Your task to perform on an android device: change alarm snooze length Image 0: 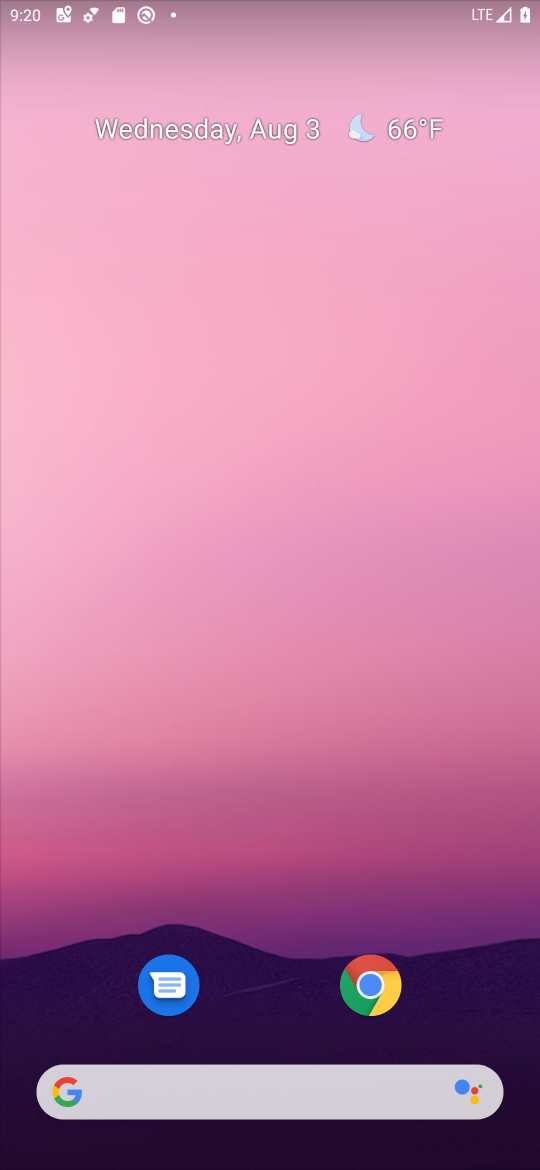
Step 0: drag from (284, 916) to (284, 252)
Your task to perform on an android device: change alarm snooze length Image 1: 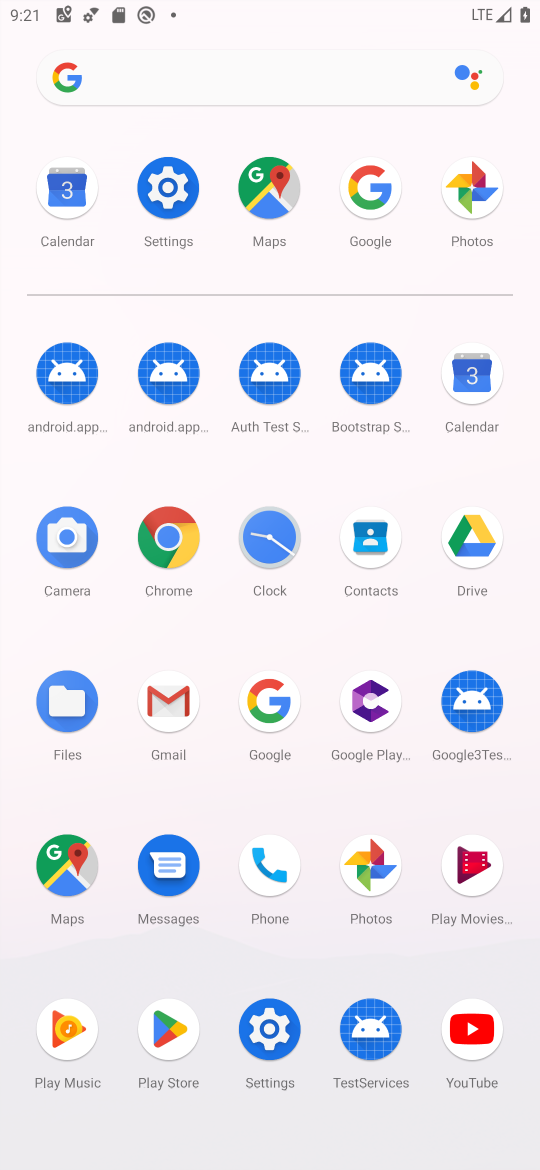
Step 1: click (265, 515)
Your task to perform on an android device: change alarm snooze length Image 2: 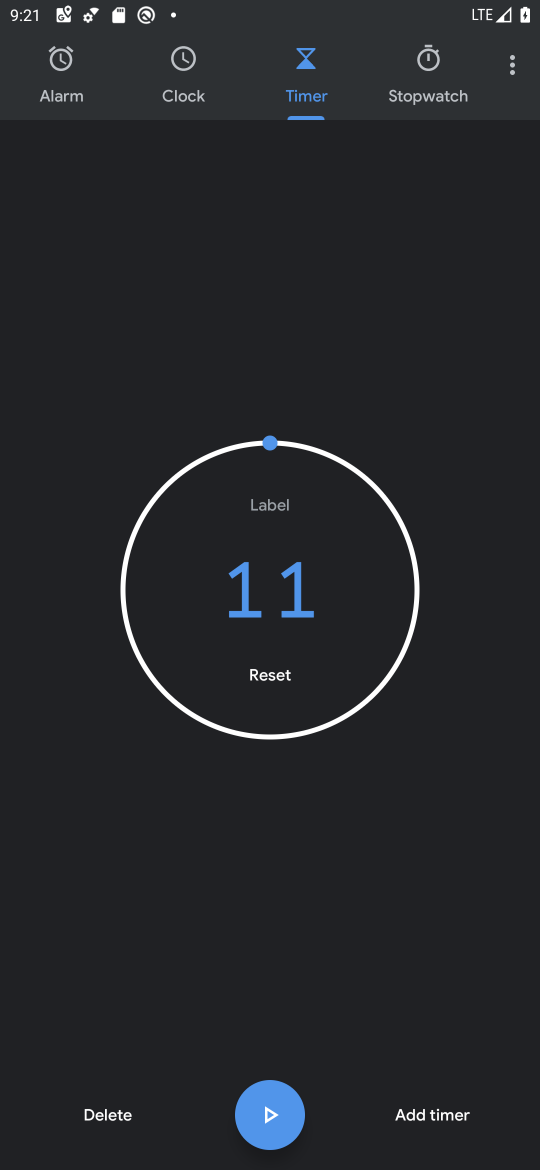
Step 2: click (516, 56)
Your task to perform on an android device: change alarm snooze length Image 3: 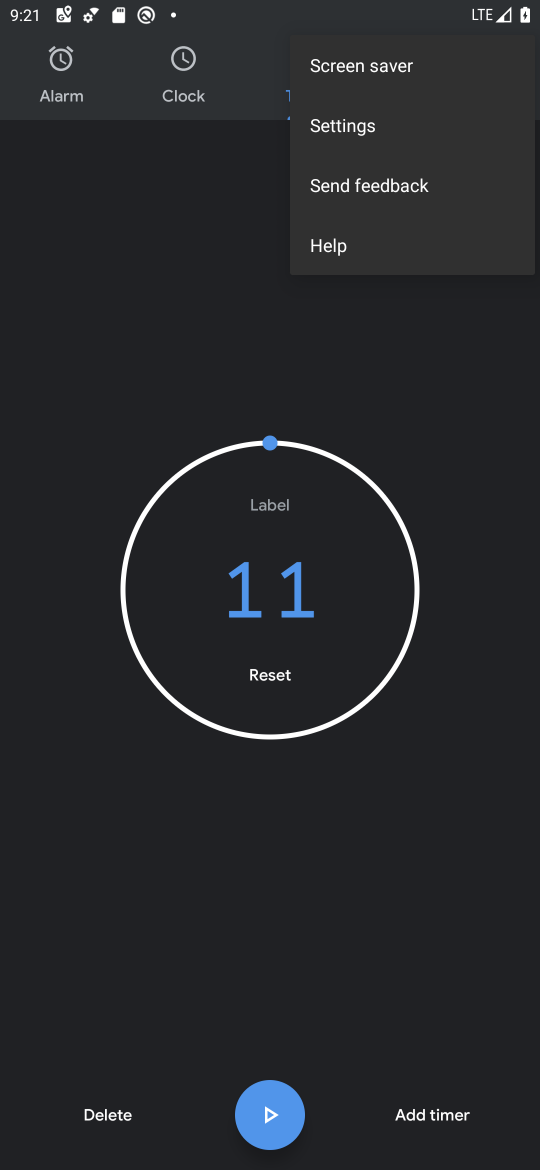
Step 3: click (372, 134)
Your task to perform on an android device: change alarm snooze length Image 4: 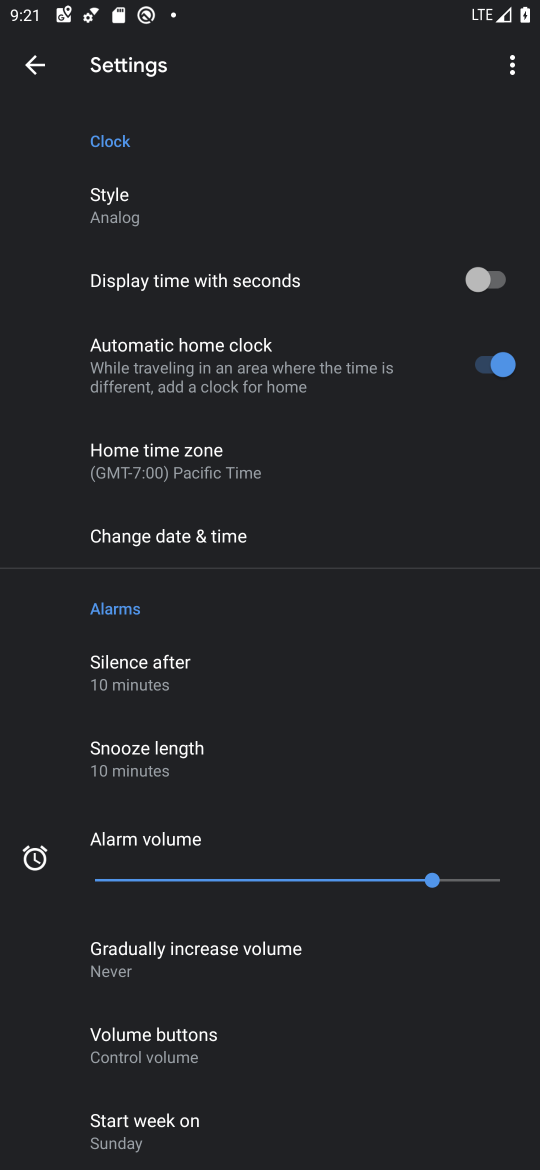
Step 4: click (220, 781)
Your task to perform on an android device: change alarm snooze length Image 5: 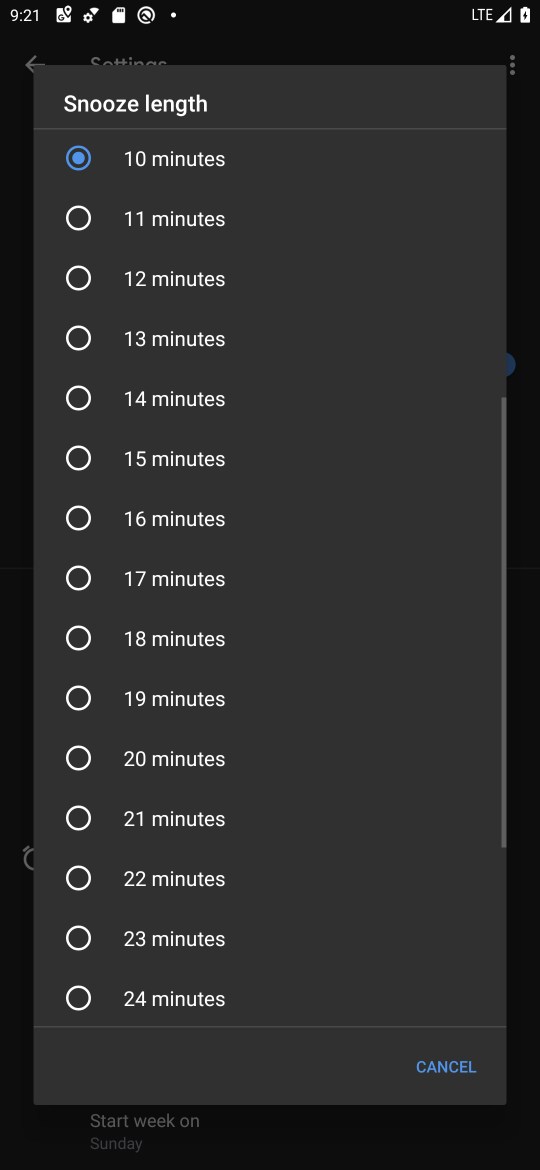
Step 5: click (169, 571)
Your task to perform on an android device: change alarm snooze length Image 6: 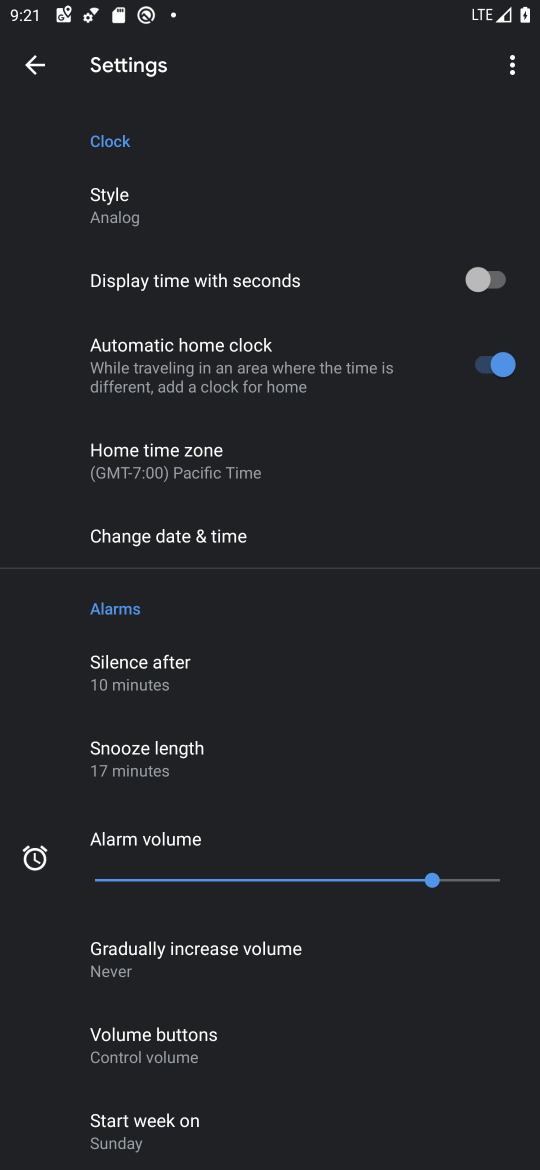
Step 6: task complete